Your task to perform on an android device: Open accessibility settings Image 0: 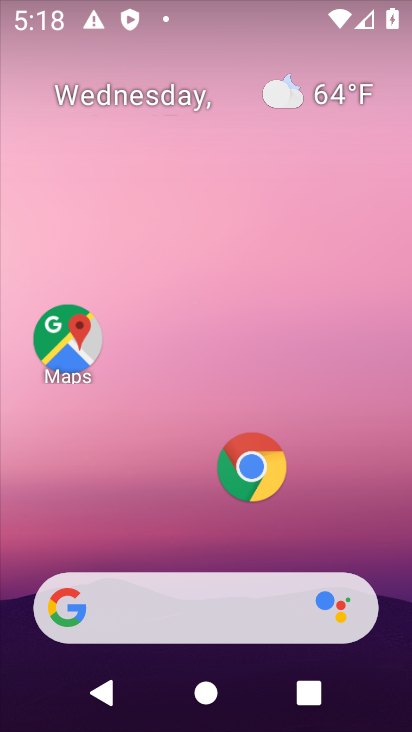
Step 0: drag from (169, 519) to (198, 161)
Your task to perform on an android device: Open accessibility settings Image 1: 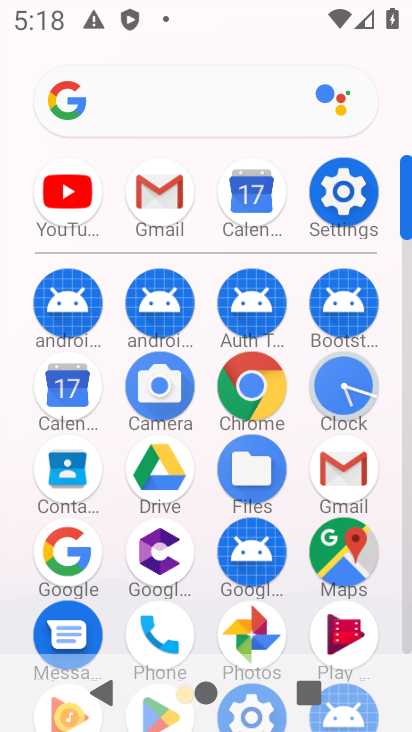
Step 1: click (340, 211)
Your task to perform on an android device: Open accessibility settings Image 2: 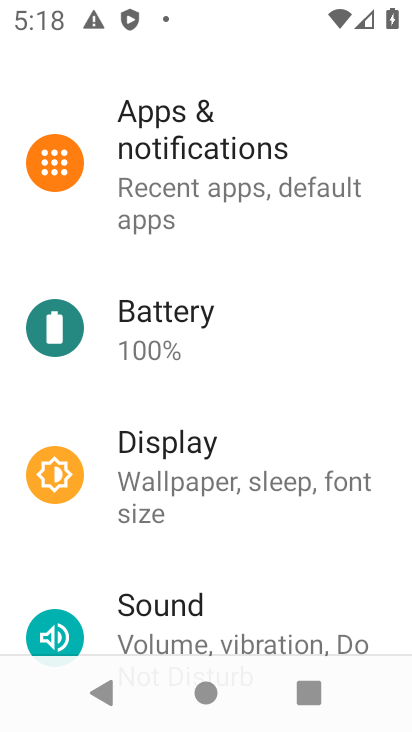
Step 2: drag from (258, 475) to (241, 229)
Your task to perform on an android device: Open accessibility settings Image 3: 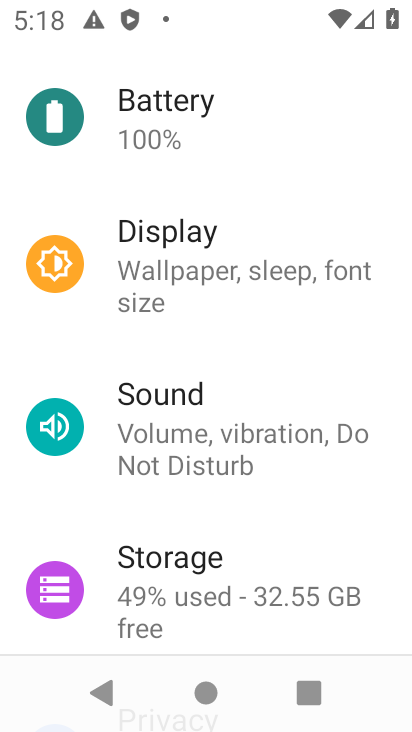
Step 3: drag from (265, 541) to (257, 236)
Your task to perform on an android device: Open accessibility settings Image 4: 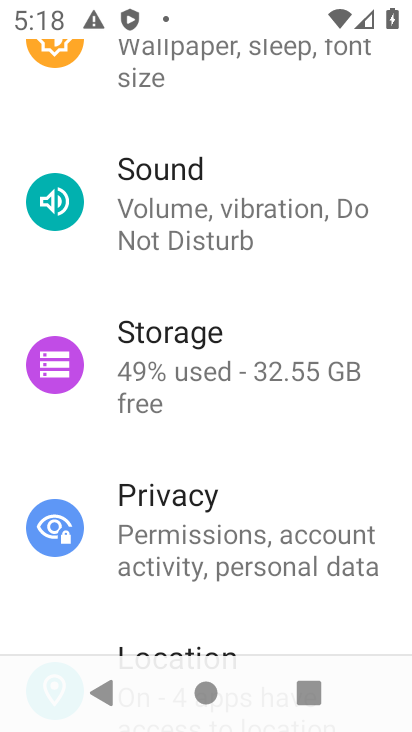
Step 4: drag from (309, 490) to (299, 227)
Your task to perform on an android device: Open accessibility settings Image 5: 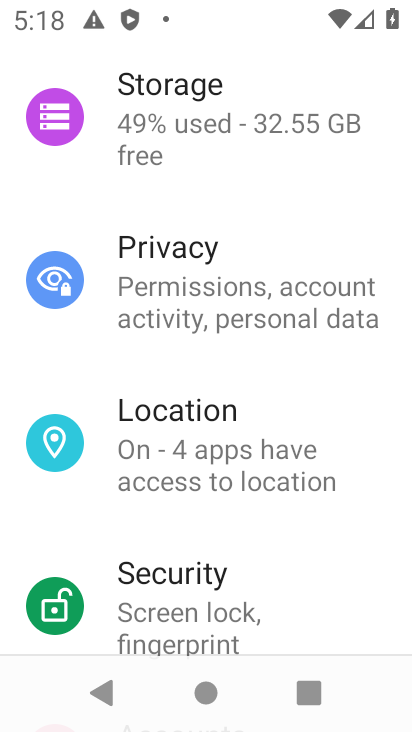
Step 5: drag from (317, 558) to (330, 273)
Your task to perform on an android device: Open accessibility settings Image 6: 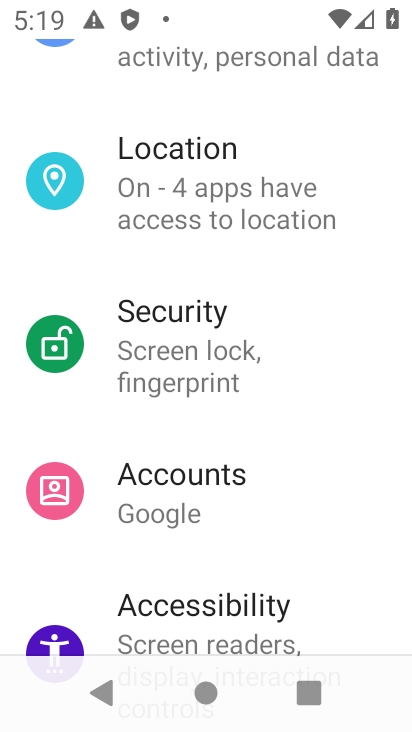
Step 6: click (281, 595)
Your task to perform on an android device: Open accessibility settings Image 7: 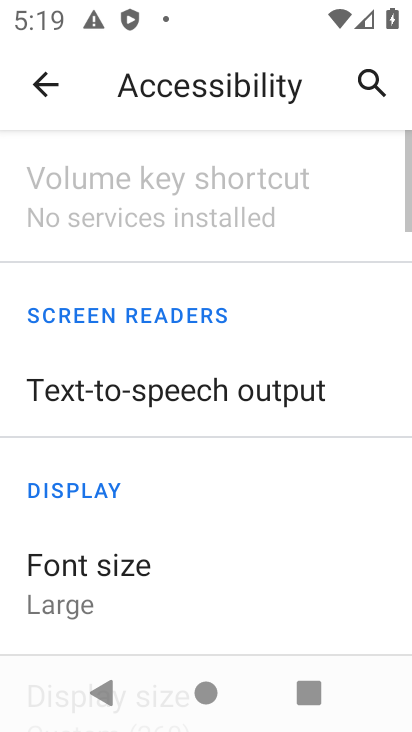
Step 7: task complete